Your task to perform on an android device: turn off notifications in google photos Image 0: 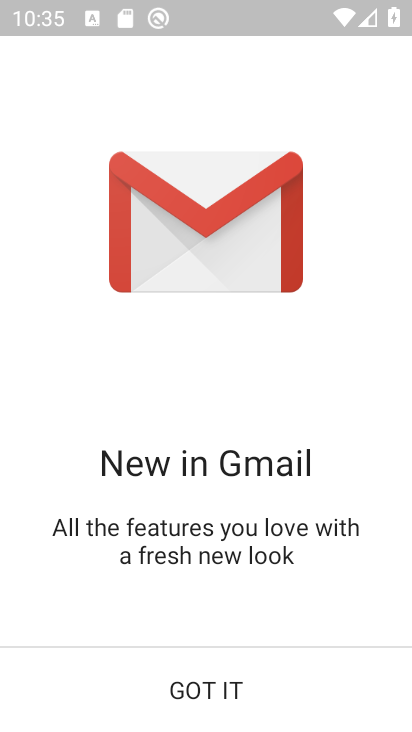
Step 0: press home button
Your task to perform on an android device: turn off notifications in google photos Image 1: 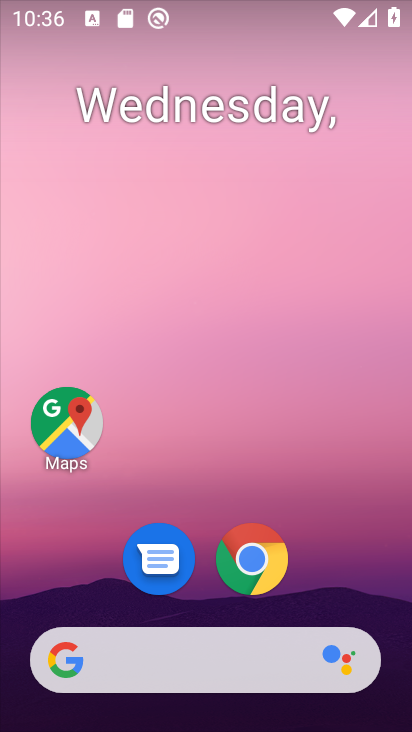
Step 1: drag from (261, 629) to (318, 2)
Your task to perform on an android device: turn off notifications in google photos Image 2: 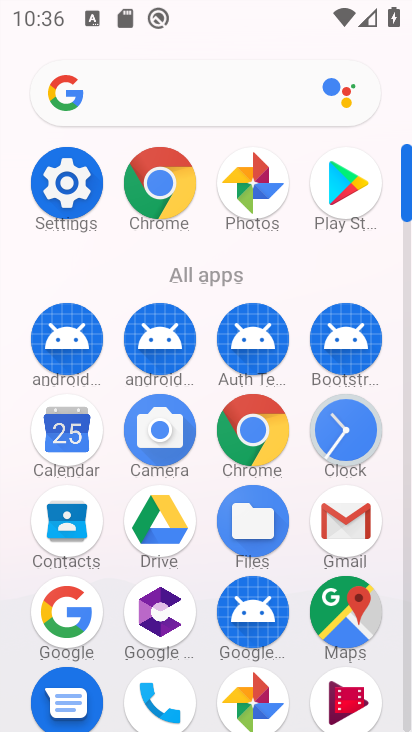
Step 2: drag from (257, 514) to (274, 297)
Your task to perform on an android device: turn off notifications in google photos Image 3: 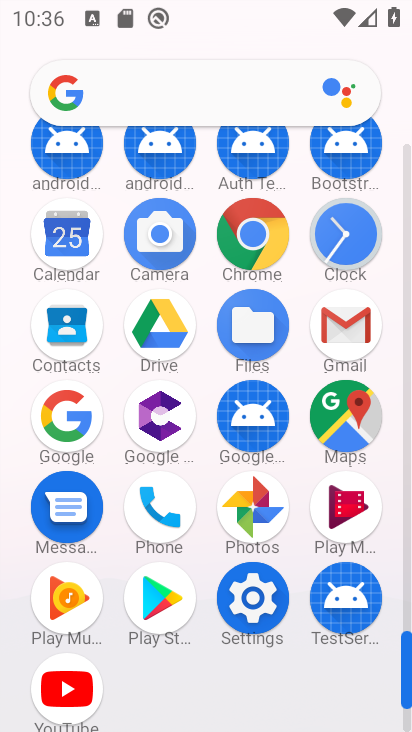
Step 3: click (254, 515)
Your task to perform on an android device: turn off notifications in google photos Image 4: 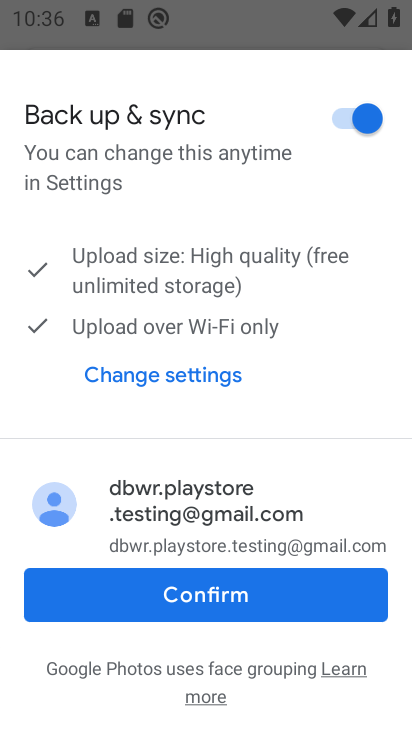
Step 4: click (179, 605)
Your task to perform on an android device: turn off notifications in google photos Image 5: 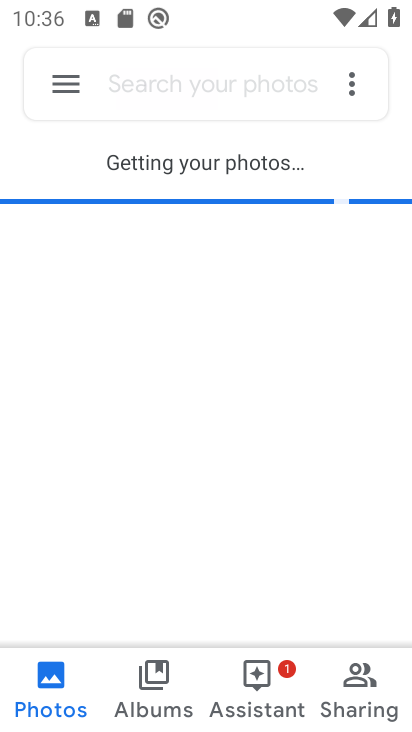
Step 5: click (65, 83)
Your task to perform on an android device: turn off notifications in google photos Image 6: 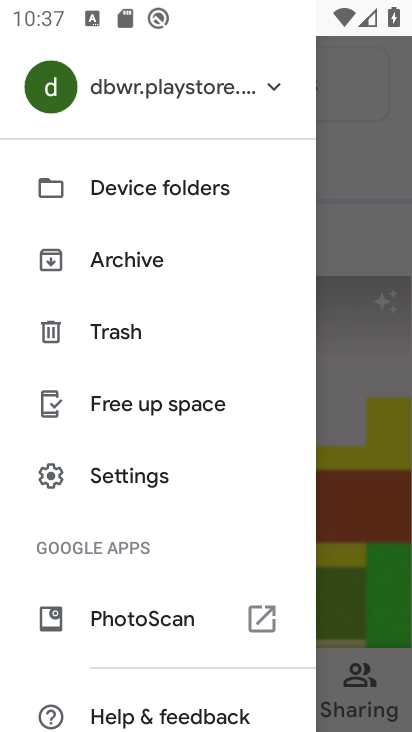
Step 6: click (131, 482)
Your task to perform on an android device: turn off notifications in google photos Image 7: 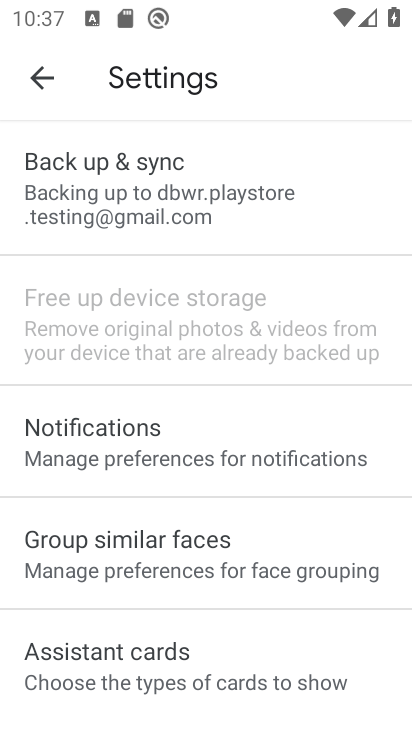
Step 7: click (175, 473)
Your task to perform on an android device: turn off notifications in google photos Image 8: 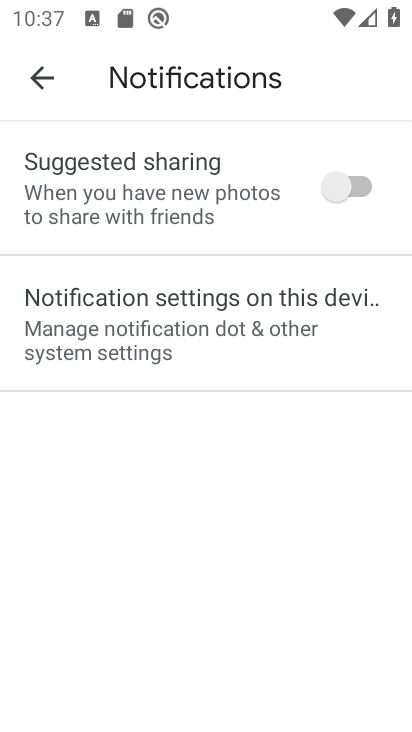
Step 8: click (195, 349)
Your task to perform on an android device: turn off notifications in google photos Image 9: 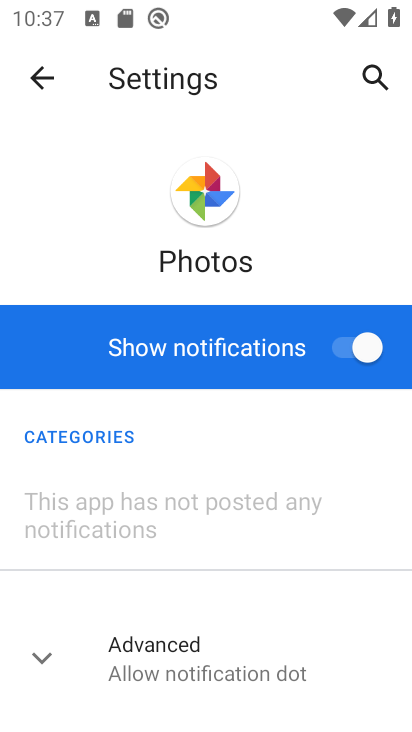
Step 9: drag from (183, 606) to (195, 418)
Your task to perform on an android device: turn off notifications in google photos Image 10: 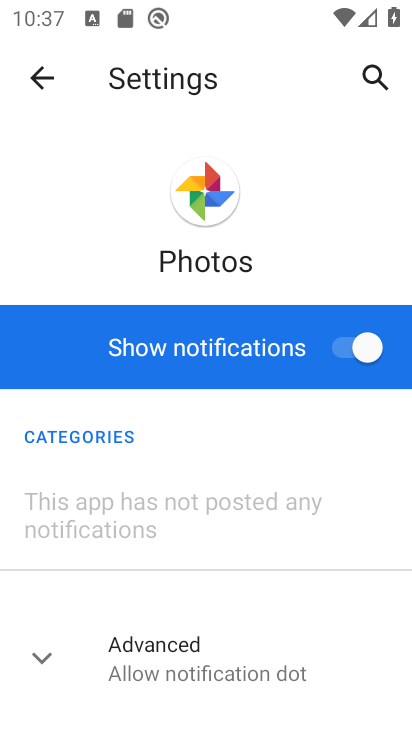
Step 10: click (339, 351)
Your task to perform on an android device: turn off notifications in google photos Image 11: 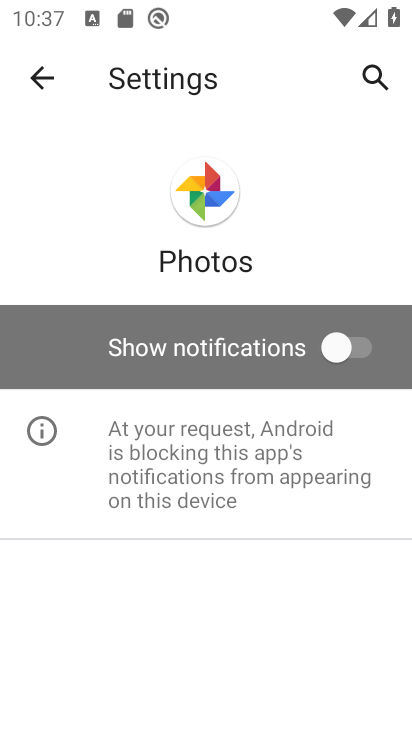
Step 11: task complete